Your task to perform on an android device: delete location history Image 0: 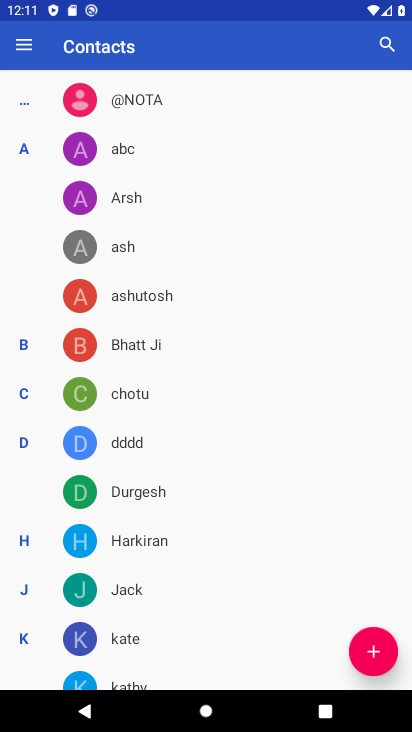
Step 0: press home button
Your task to perform on an android device: delete location history Image 1: 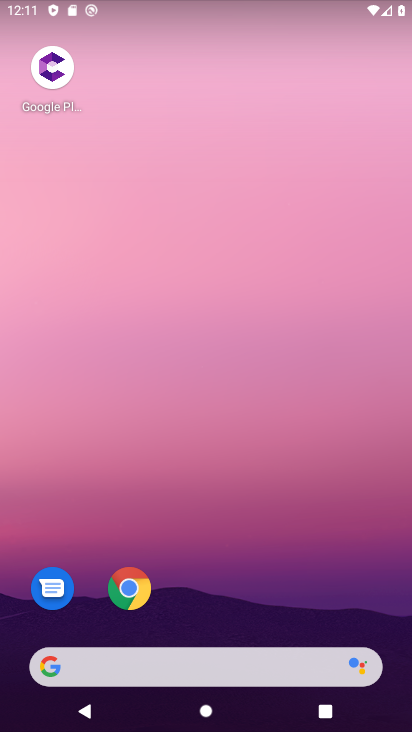
Step 1: drag from (347, 607) to (352, 226)
Your task to perform on an android device: delete location history Image 2: 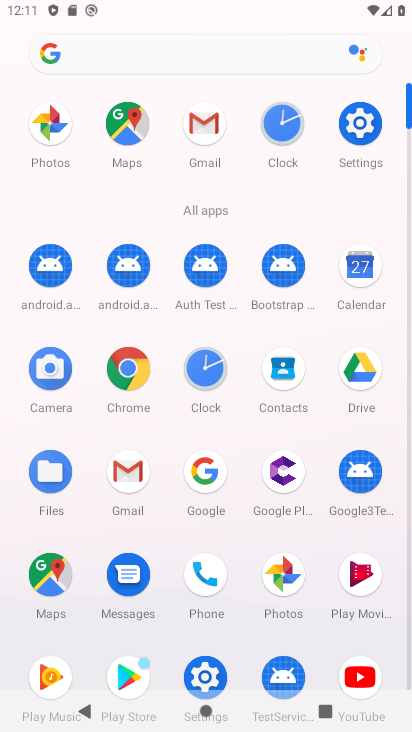
Step 2: click (409, 674)
Your task to perform on an android device: delete location history Image 3: 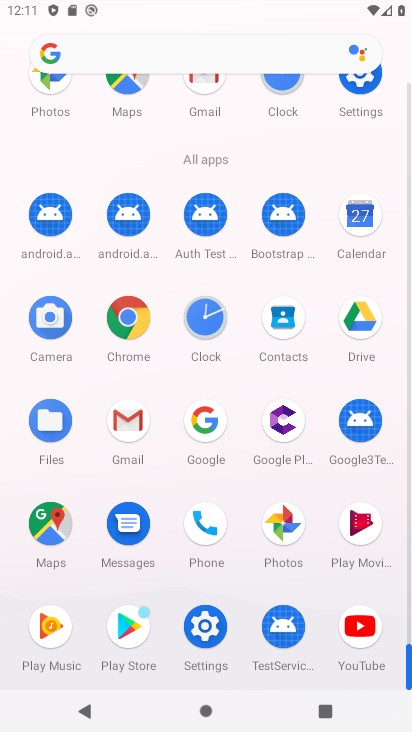
Step 3: click (47, 520)
Your task to perform on an android device: delete location history Image 4: 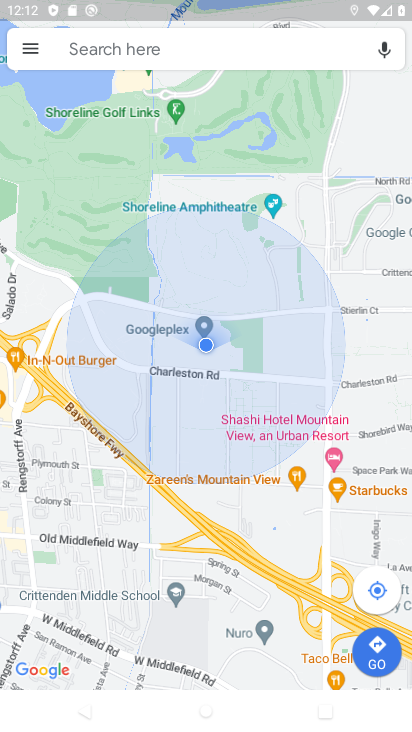
Step 4: click (28, 50)
Your task to perform on an android device: delete location history Image 5: 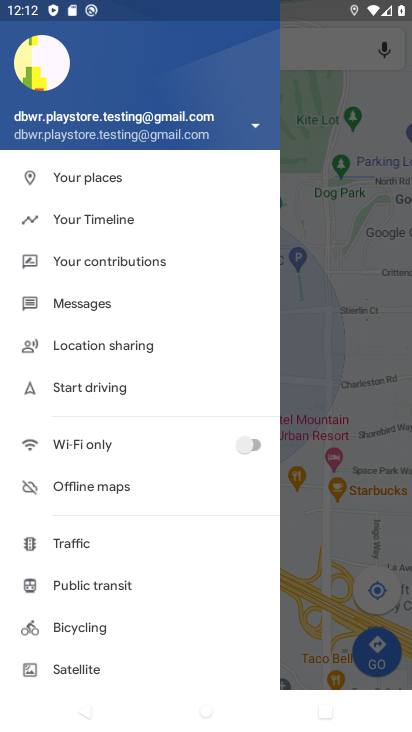
Step 5: drag from (160, 646) to (214, 205)
Your task to perform on an android device: delete location history Image 6: 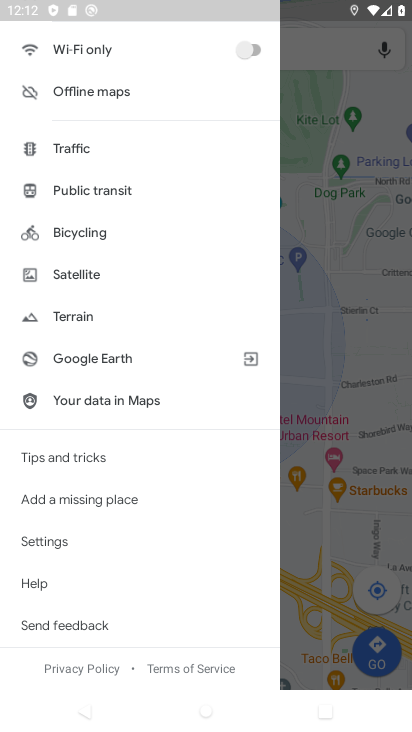
Step 6: click (48, 533)
Your task to perform on an android device: delete location history Image 7: 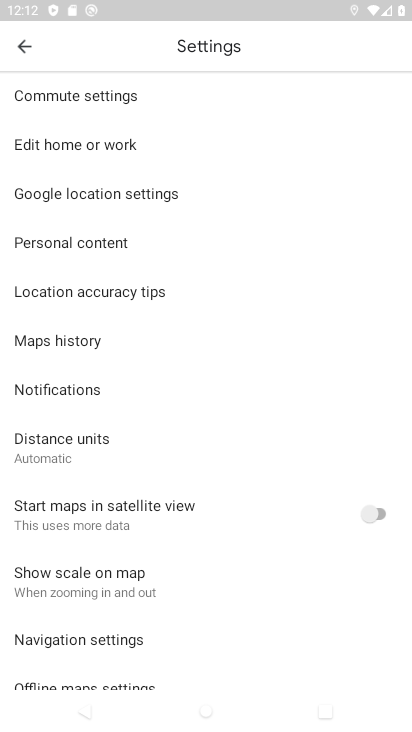
Step 7: click (78, 241)
Your task to perform on an android device: delete location history Image 8: 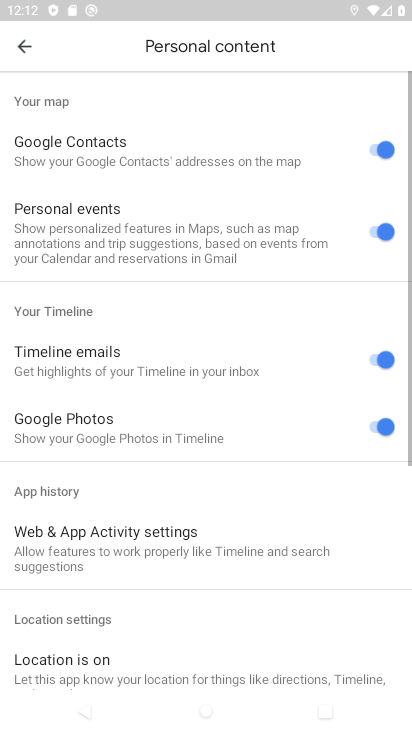
Step 8: drag from (268, 627) to (295, 122)
Your task to perform on an android device: delete location history Image 9: 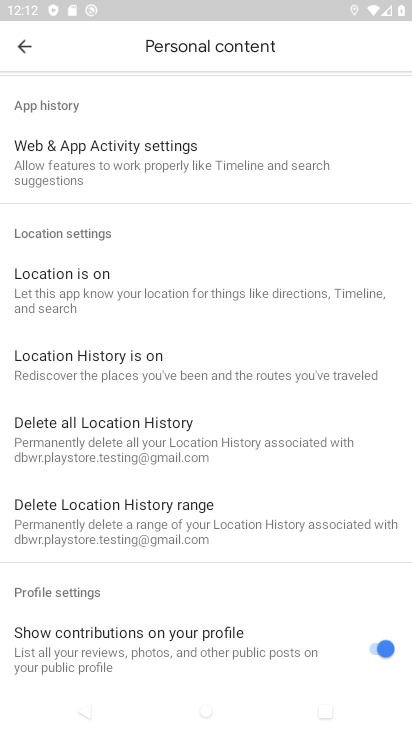
Step 9: click (88, 436)
Your task to perform on an android device: delete location history Image 10: 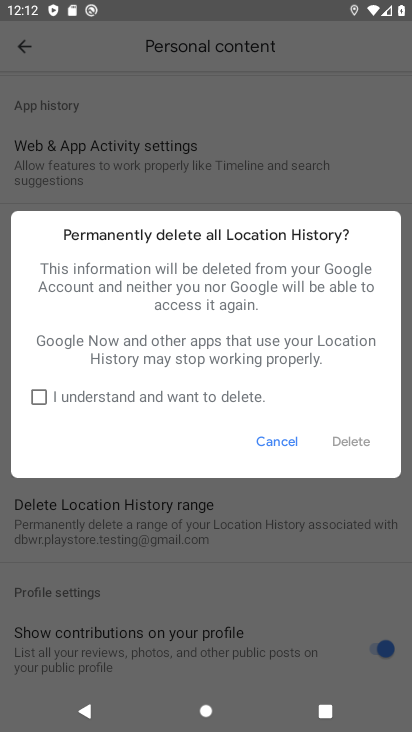
Step 10: click (38, 394)
Your task to perform on an android device: delete location history Image 11: 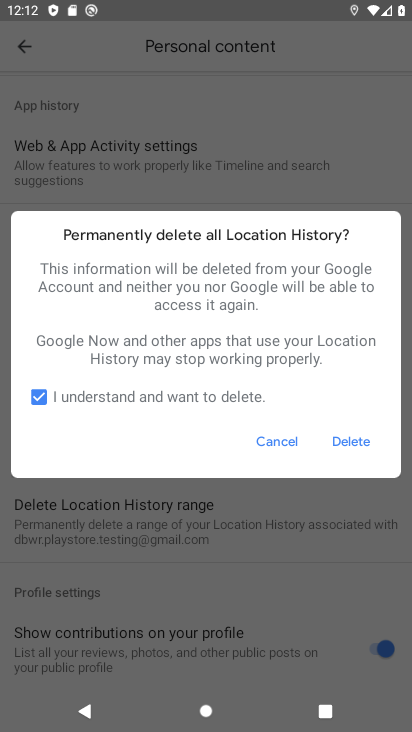
Step 11: click (343, 438)
Your task to perform on an android device: delete location history Image 12: 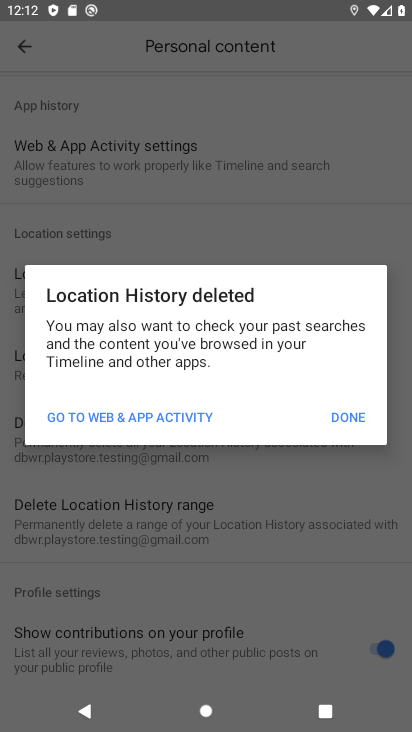
Step 12: click (341, 419)
Your task to perform on an android device: delete location history Image 13: 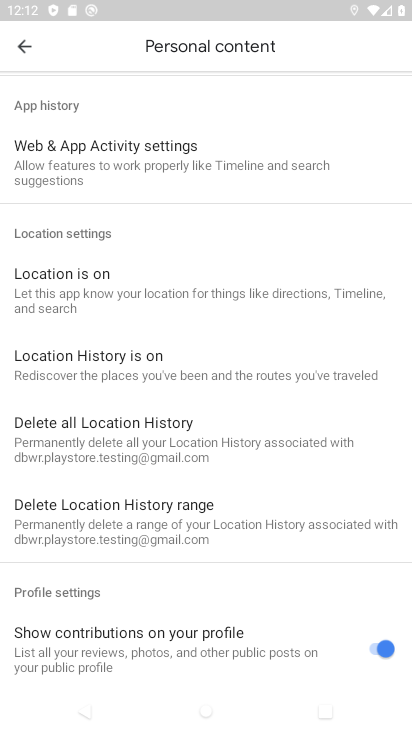
Step 13: task complete